Your task to perform on an android device: Go to privacy settings Image 0: 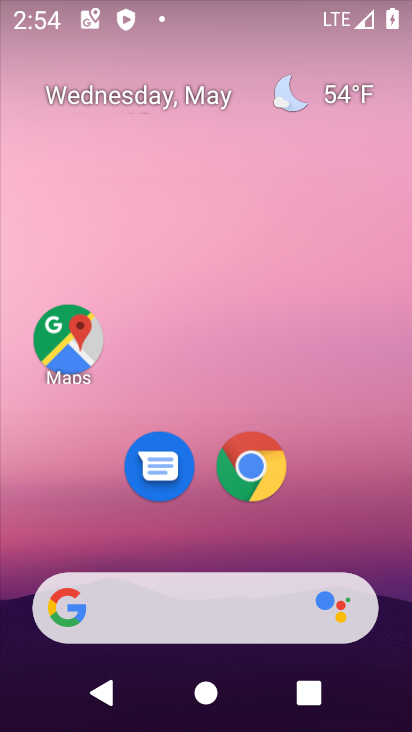
Step 0: drag from (309, 503) to (316, 330)
Your task to perform on an android device: Go to privacy settings Image 1: 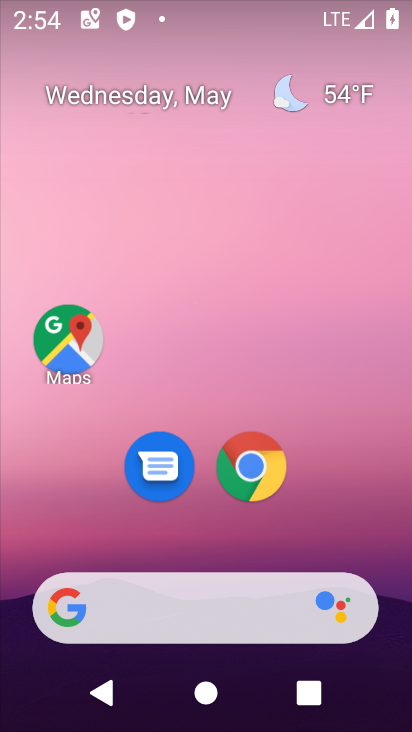
Step 1: drag from (329, 467) to (391, 282)
Your task to perform on an android device: Go to privacy settings Image 2: 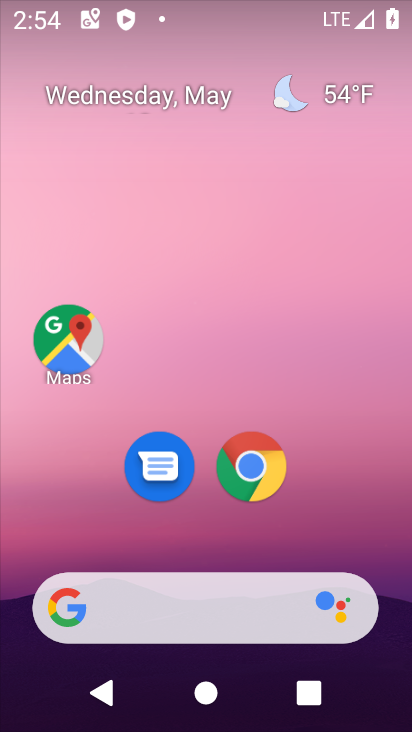
Step 2: drag from (365, 544) to (374, 252)
Your task to perform on an android device: Go to privacy settings Image 3: 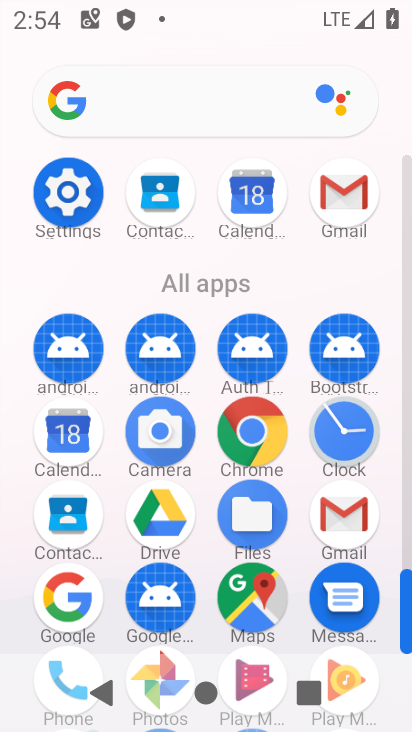
Step 3: click (64, 215)
Your task to perform on an android device: Go to privacy settings Image 4: 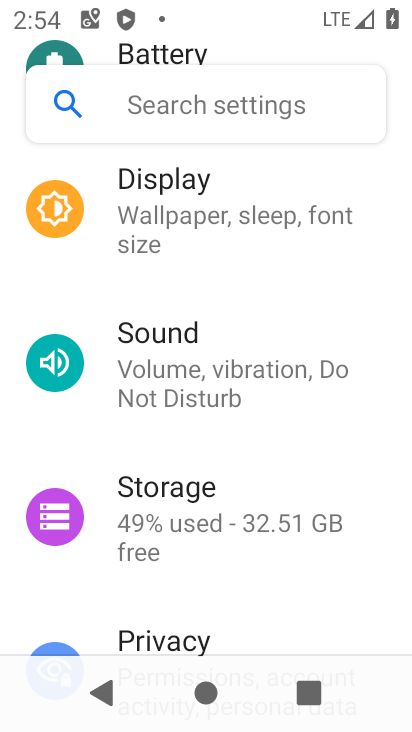
Step 4: click (150, 632)
Your task to perform on an android device: Go to privacy settings Image 5: 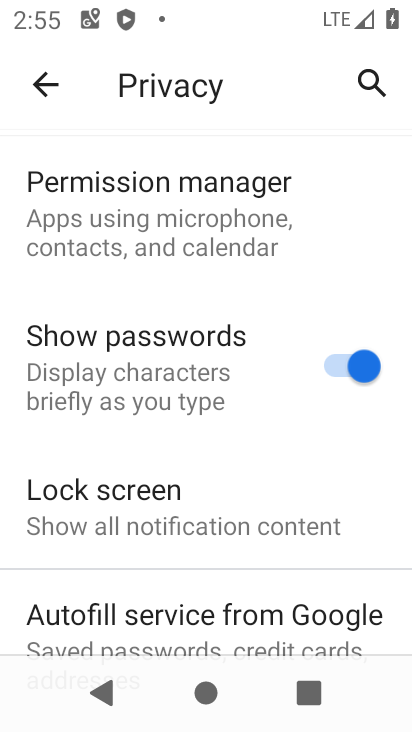
Step 5: task complete